Your task to perform on an android device: turn off location history Image 0: 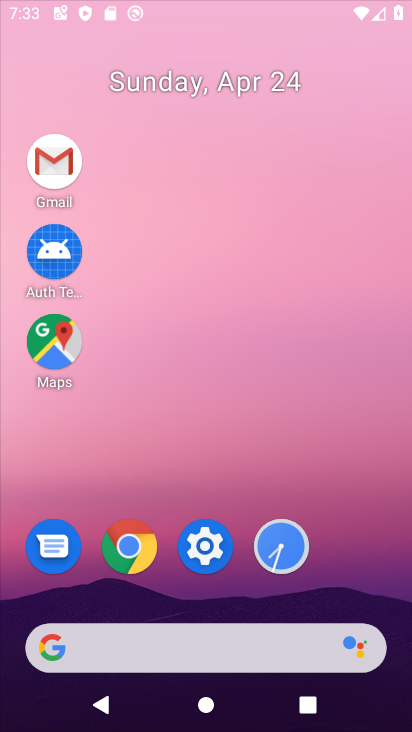
Step 0: click (127, 640)
Your task to perform on an android device: turn off location history Image 1: 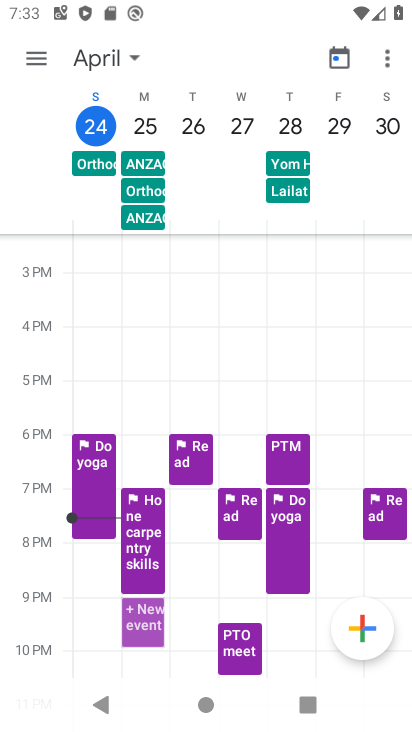
Step 1: press home button
Your task to perform on an android device: turn off location history Image 2: 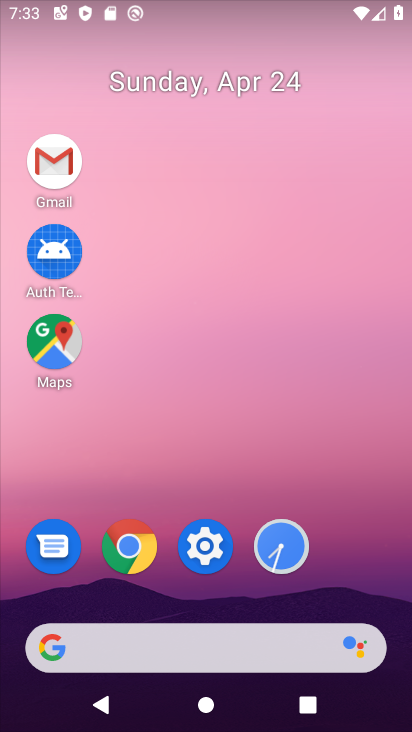
Step 2: click (45, 352)
Your task to perform on an android device: turn off location history Image 3: 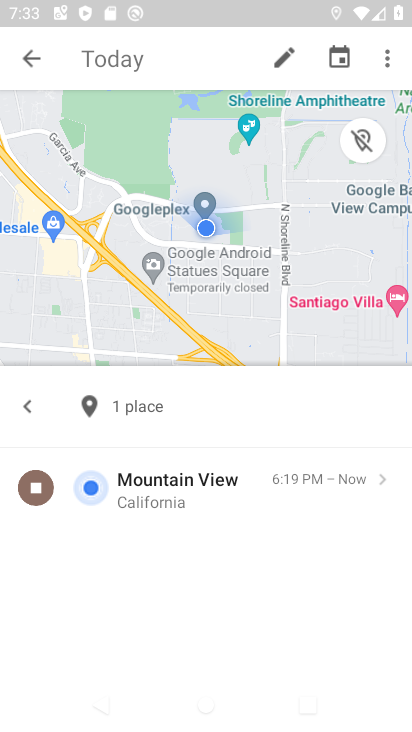
Step 3: click (382, 63)
Your task to perform on an android device: turn off location history Image 4: 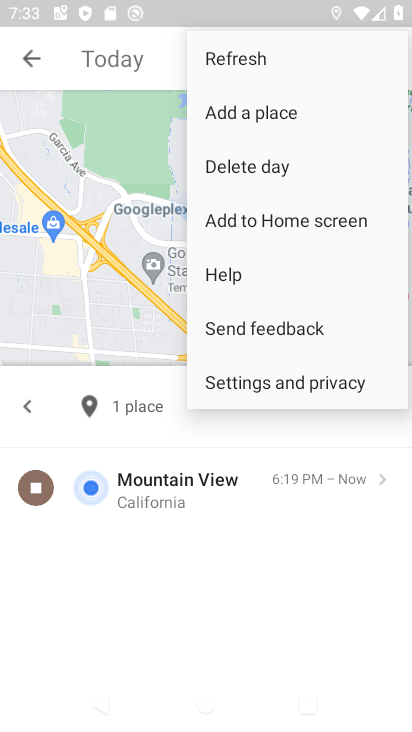
Step 4: click (272, 380)
Your task to perform on an android device: turn off location history Image 5: 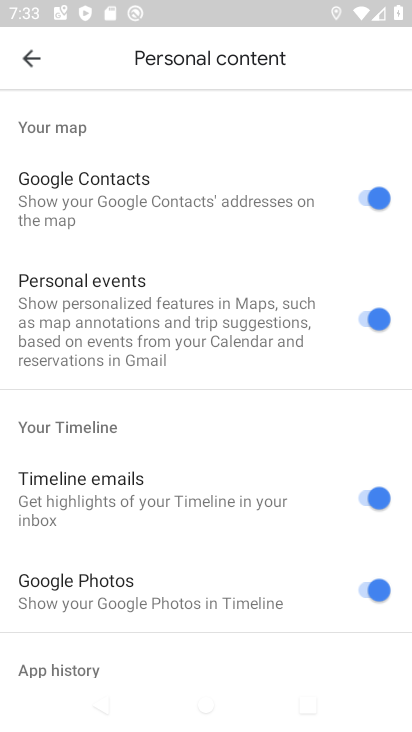
Step 5: drag from (257, 467) to (198, 192)
Your task to perform on an android device: turn off location history Image 6: 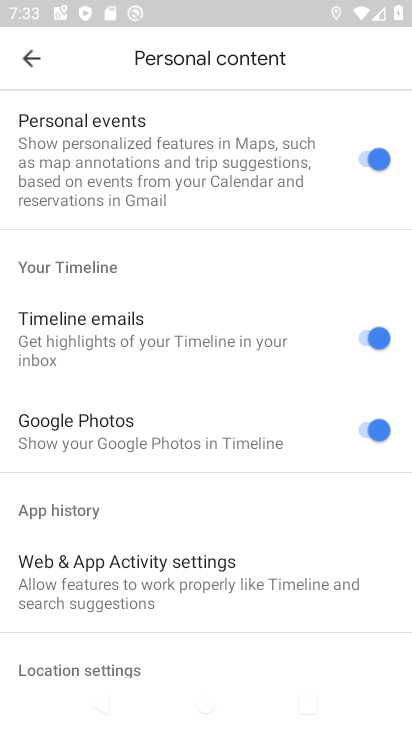
Step 6: drag from (189, 499) to (122, 18)
Your task to perform on an android device: turn off location history Image 7: 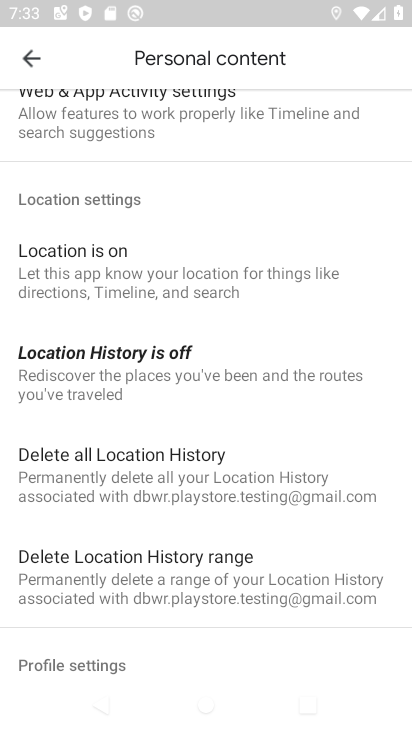
Step 7: click (133, 348)
Your task to perform on an android device: turn off location history Image 8: 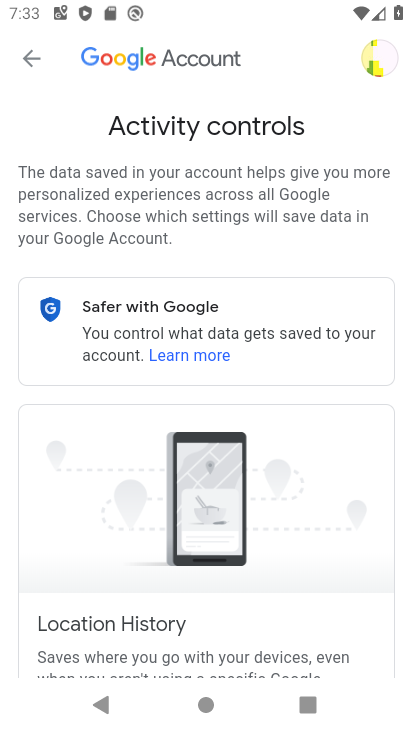
Step 8: task complete